Your task to perform on an android device: Do I have any events tomorrow? Image 0: 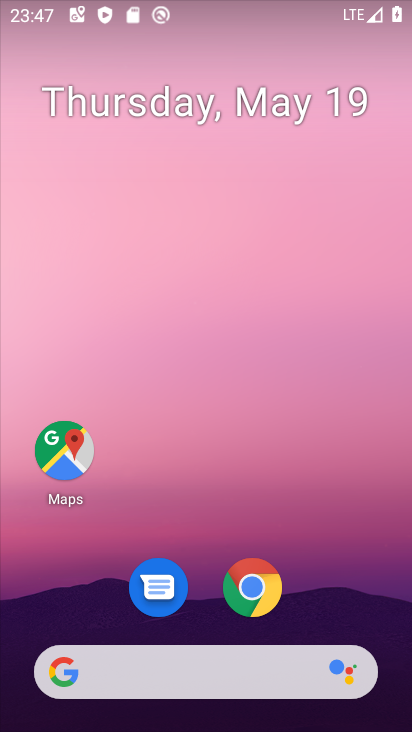
Step 0: drag from (212, 711) to (239, 207)
Your task to perform on an android device: Do I have any events tomorrow? Image 1: 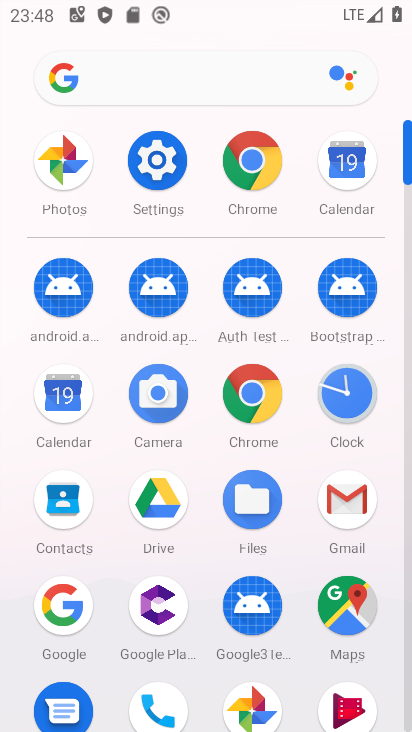
Step 1: click (203, 82)
Your task to perform on an android device: Do I have any events tomorrow? Image 2: 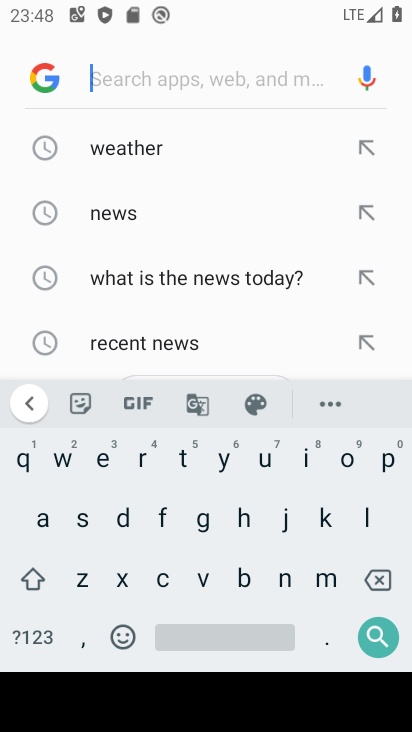
Step 2: press home button
Your task to perform on an android device: Do I have any events tomorrow? Image 3: 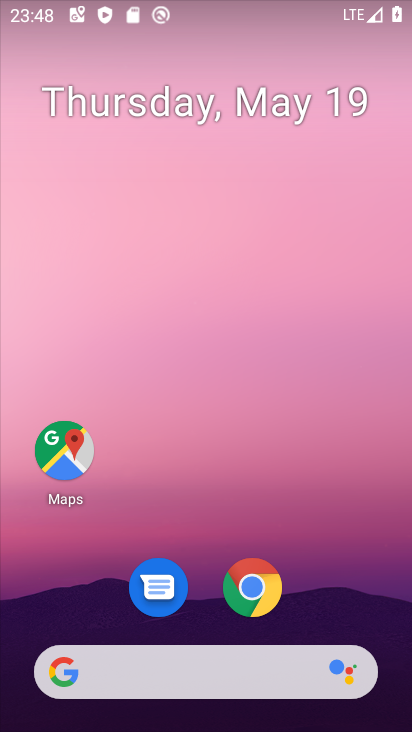
Step 3: drag from (236, 688) to (242, 242)
Your task to perform on an android device: Do I have any events tomorrow? Image 4: 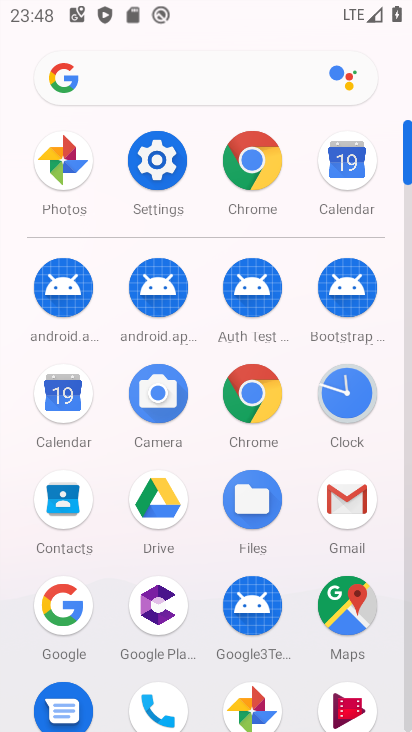
Step 4: click (56, 395)
Your task to perform on an android device: Do I have any events tomorrow? Image 5: 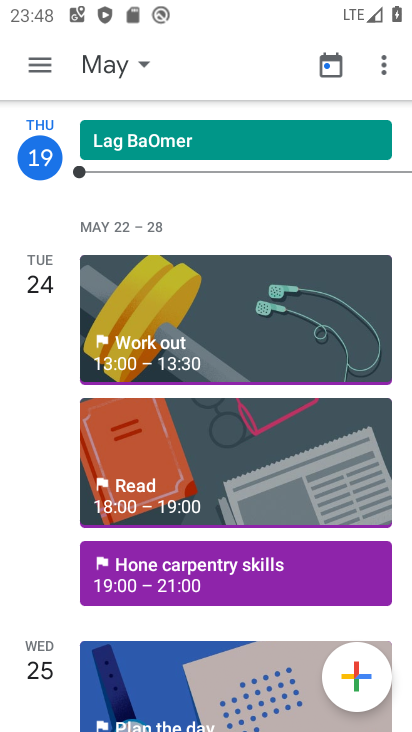
Step 5: task complete